Your task to perform on an android device: turn off improve location accuracy Image 0: 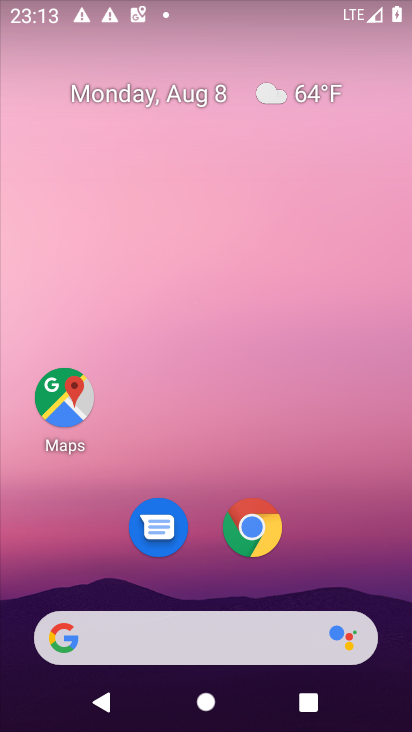
Step 0: drag from (384, 696) to (326, 163)
Your task to perform on an android device: turn off improve location accuracy Image 1: 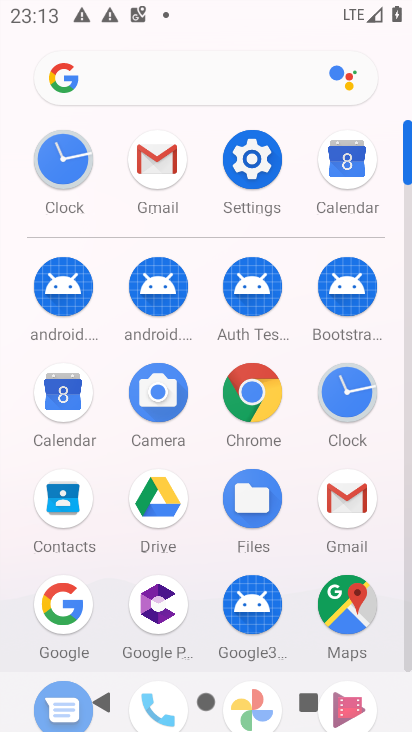
Step 1: click (245, 168)
Your task to perform on an android device: turn off improve location accuracy Image 2: 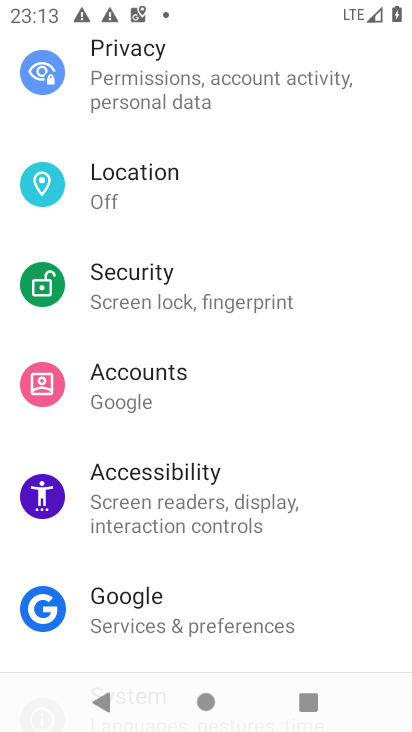
Step 2: drag from (303, 632) to (308, 314)
Your task to perform on an android device: turn off improve location accuracy Image 3: 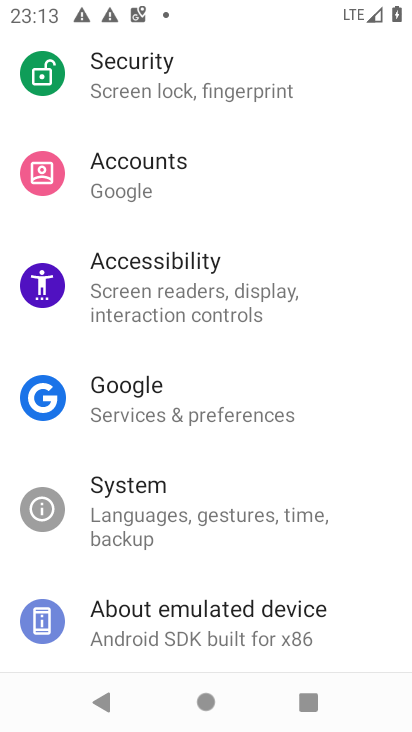
Step 3: drag from (311, 69) to (330, 523)
Your task to perform on an android device: turn off improve location accuracy Image 4: 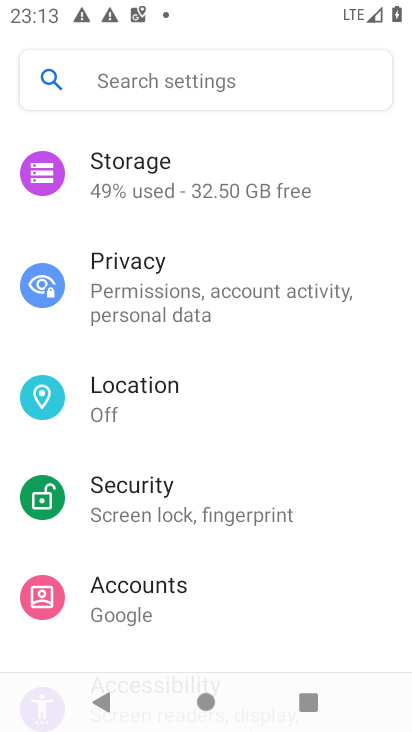
Step 4: click (104, 393)
Your task to perform on an android device: turn off improve location accuracy Image 5: 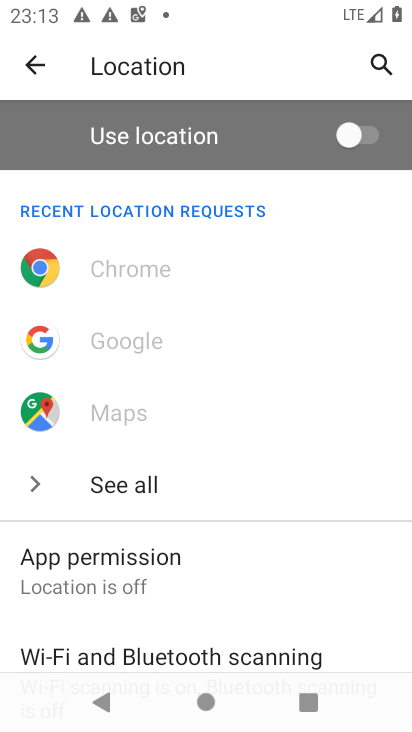
Step 5: drag from (234, 622) to (275, 300)
Your task to perform on an android device: turn off improve location accuracy Image 6: 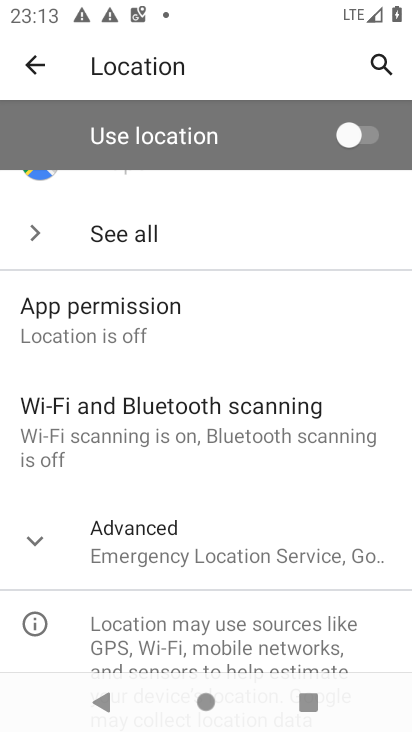
Step 6: click (45, 538)
Your task to perform on an android device: turn off improve location accuracy Image 7: 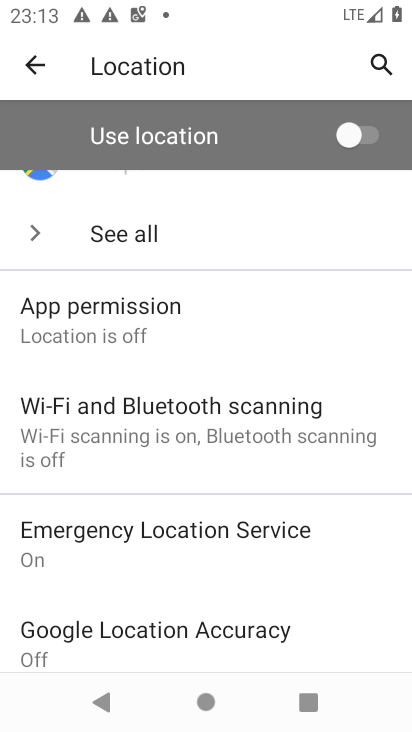
Step 7: drag from (259, 592) to (307, 354)
Your task to perform on an android device: turn off improve location accuracy Image 8: 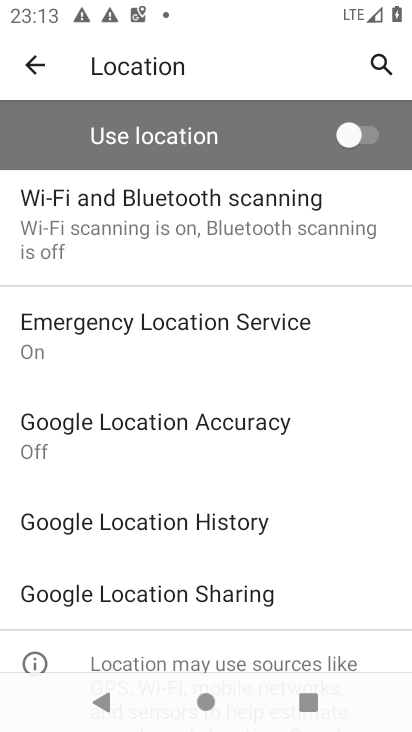
Step 8: click (125, 460)
Your task to perform on an android device: turn off improve location accuracy Image 9: 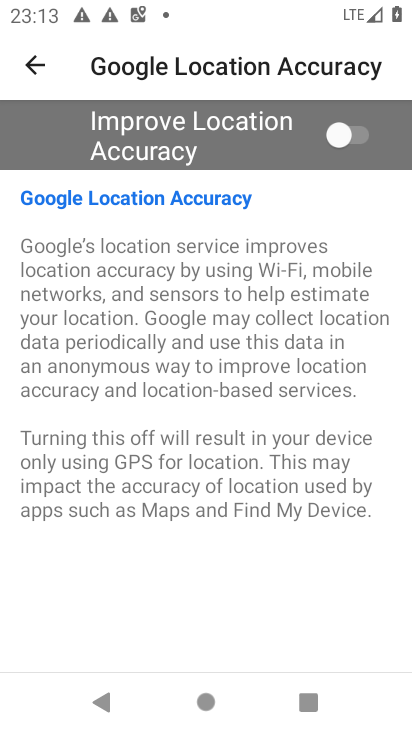
Step 9: task complete